Your task to perform on an android device: Search for amazon basics triple a on ebay, select the first entry, and add it to the cart. Image 0: 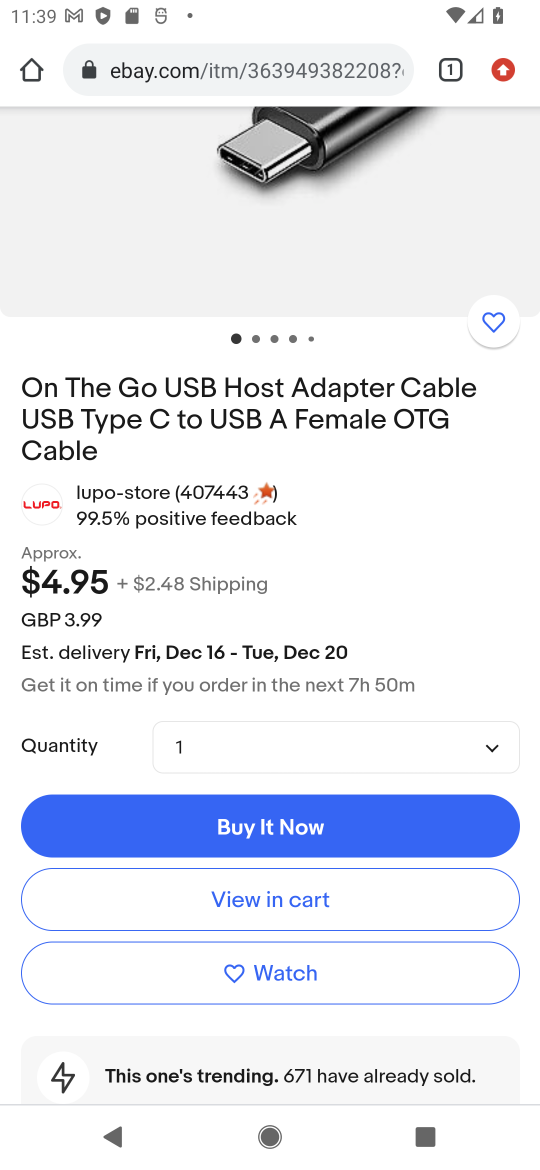
Step 0: drag from (251, 268) to (211, 857)
Your task to perform on an android device: Search for amazon basics triple a on ebay, select the first entry, and add it to the cart. Image 1: 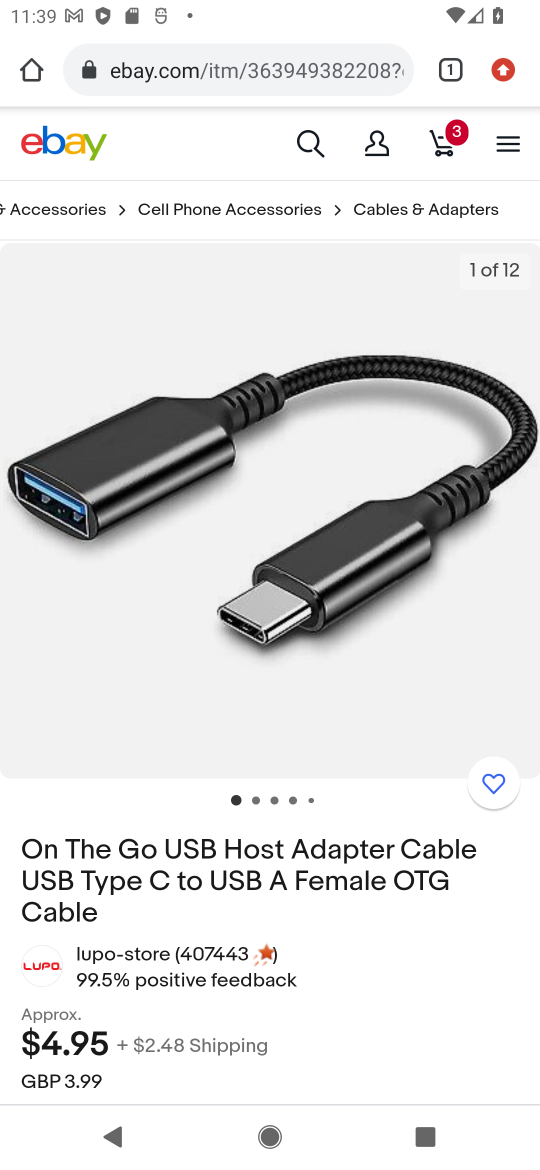
Step 1: click (304, 142)
Your task to perform on an android device: Search for amazon basics triple a on ebay, select the first entry, and add it to the cart. Image 2: 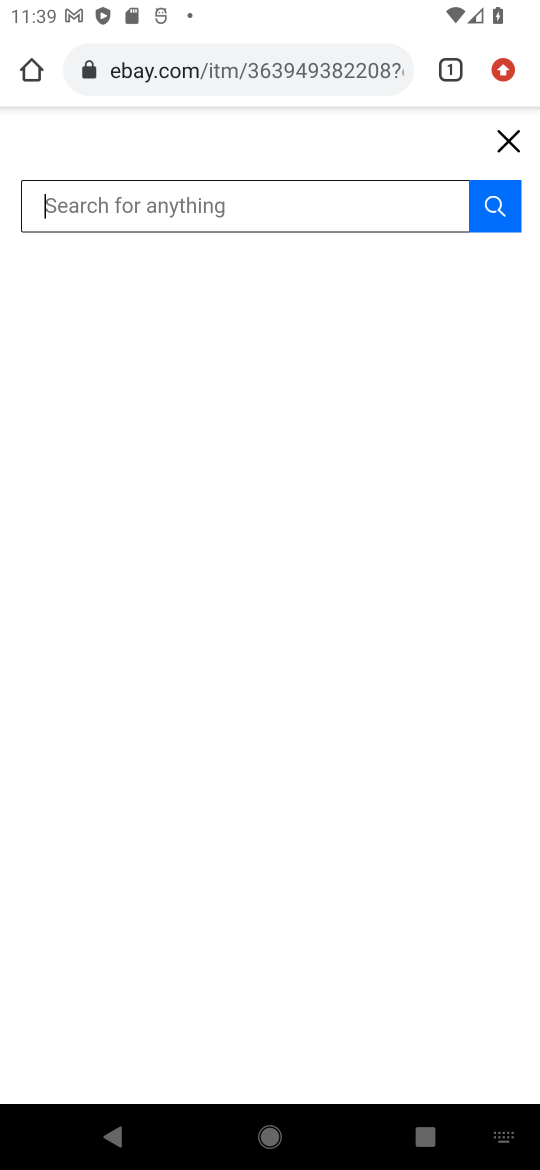
Step 2: type "amazon basics triple a "
Your task to perform on an android device: Search for amazon basics triple a on ebay, select the first entry, and add it to the cart. Image 3: 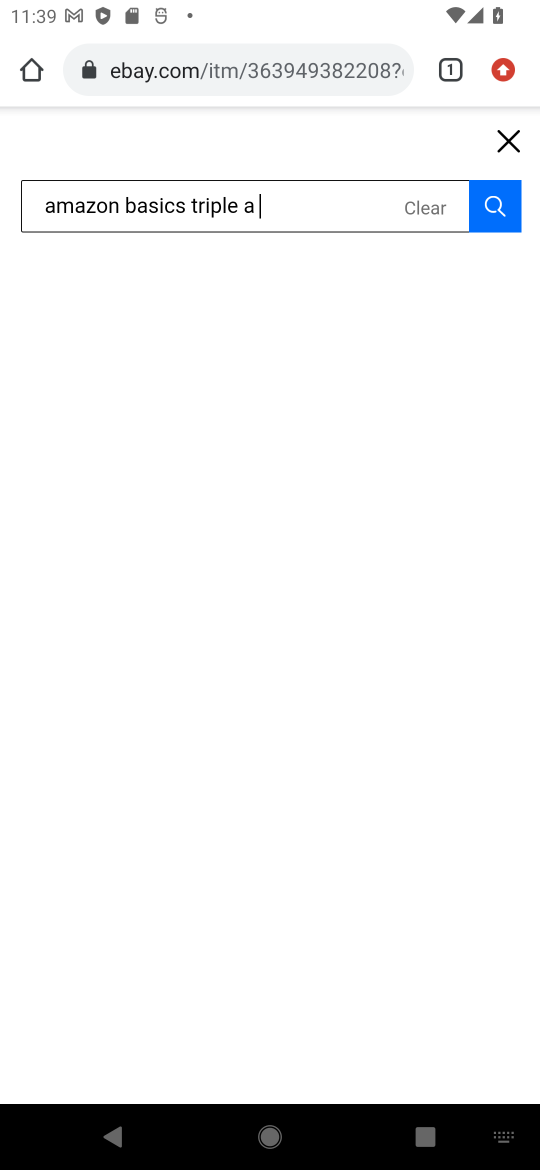
Step 3: click (497, 201)
Your task to perform on an android device: Search for amazon basics triple a on ebay, select the first entry, and add it to the cart. Image 4: 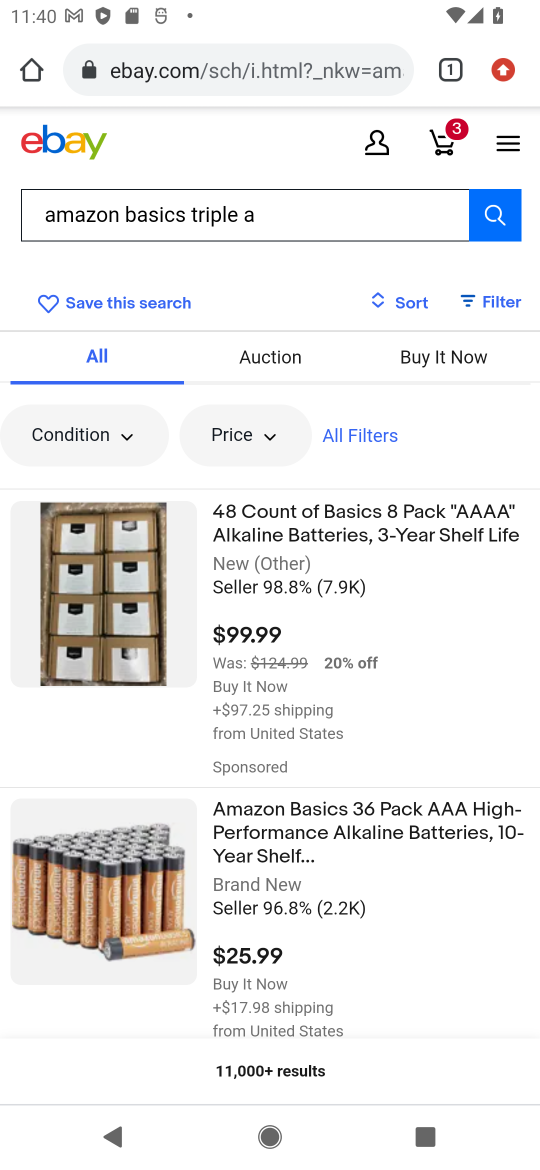
Step 4: task complete